Your task to perform on an android device: toggle priority inbox in the gmail app Image 0: 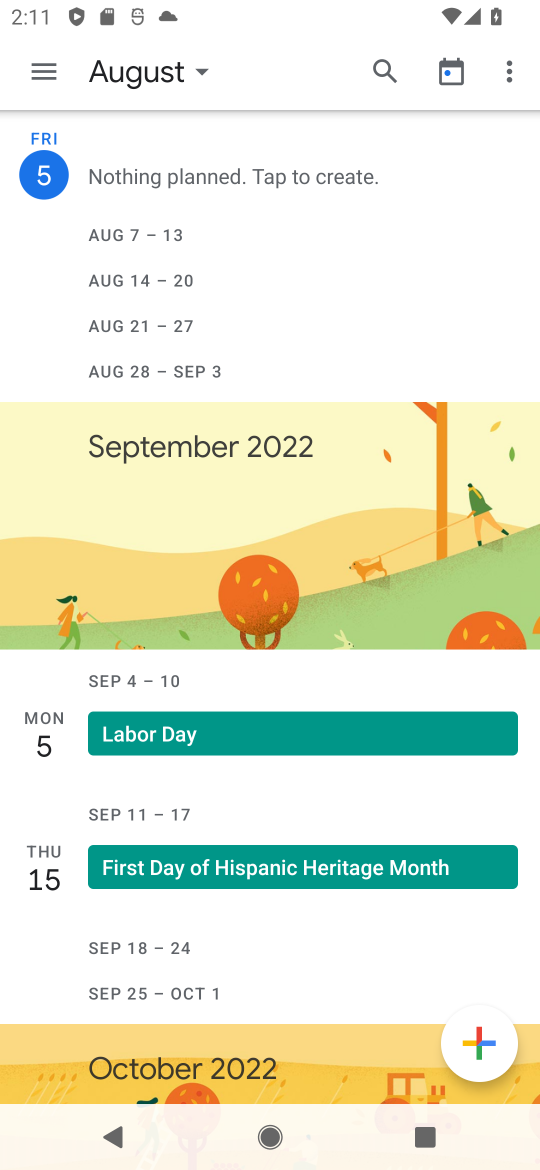
Step 0: press home button
Your task to perform on an android device: toggle priority inbox in the gmail app Image 1: 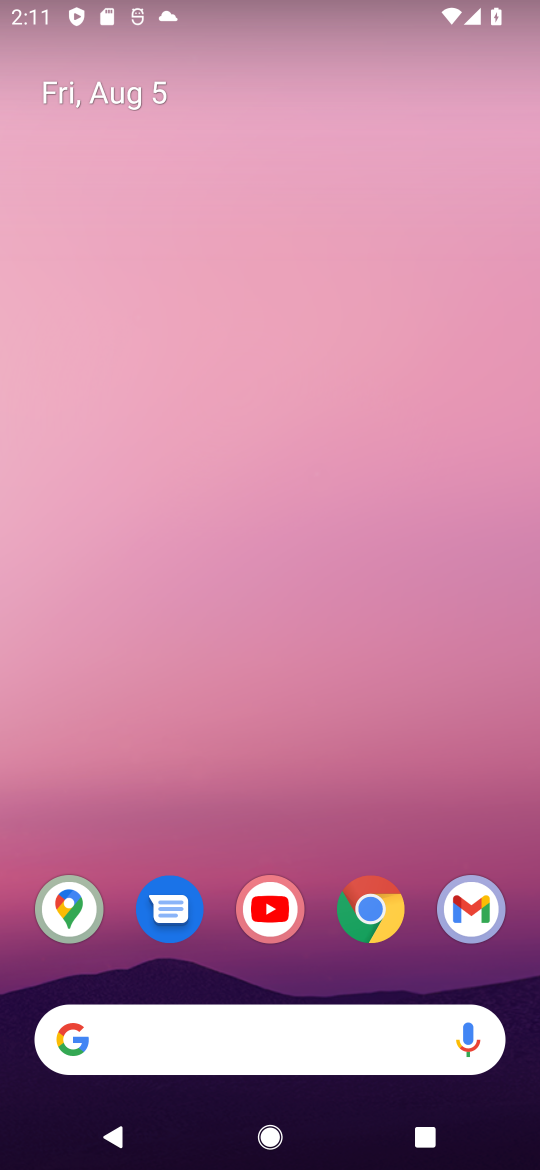
Step 1: drag from (228, 983) to (340, 263)
Your task to perform on an android device: toggle priority inbox in the gmail app Image 2: 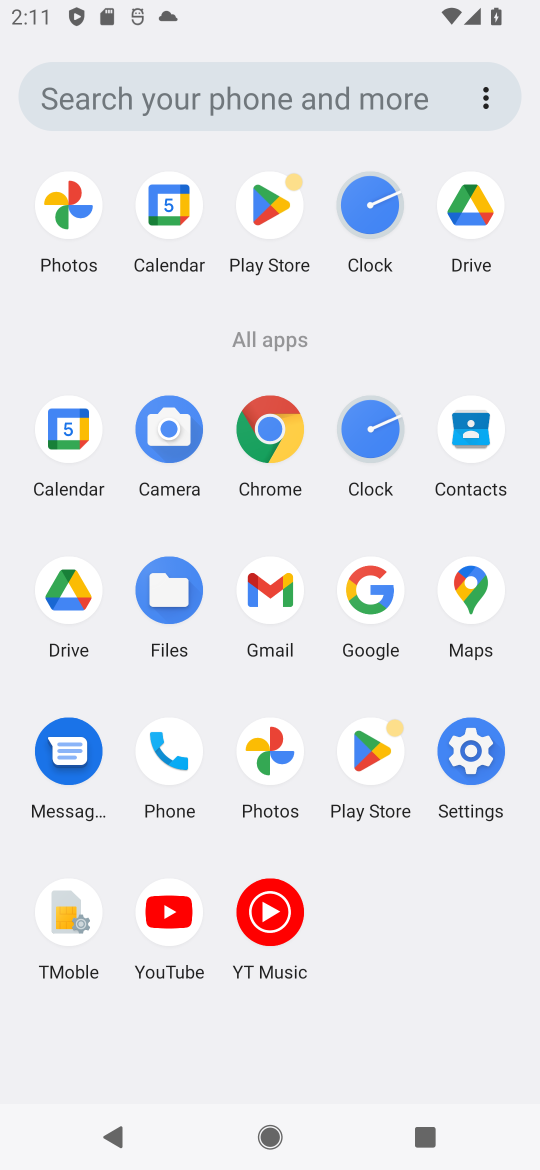
Step 2: click (288, 637)
Your task to perform on an android device: toggle priority inbox in the gmail app Image 3: 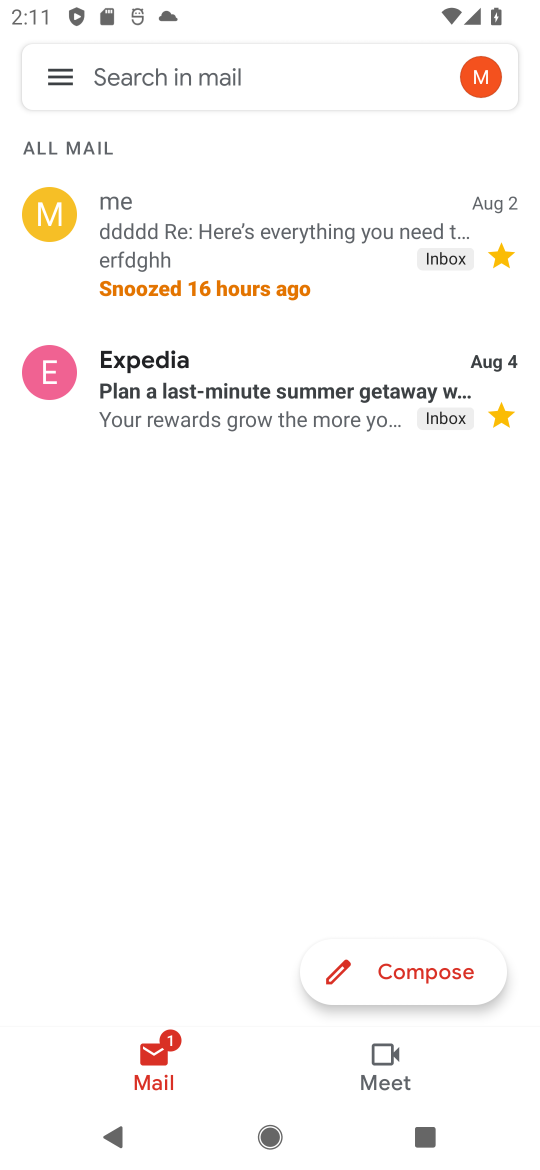
Step 3: click (46, 83)
Your task to perform on an android device: toggle priority inbox in the gmail app Image 4: 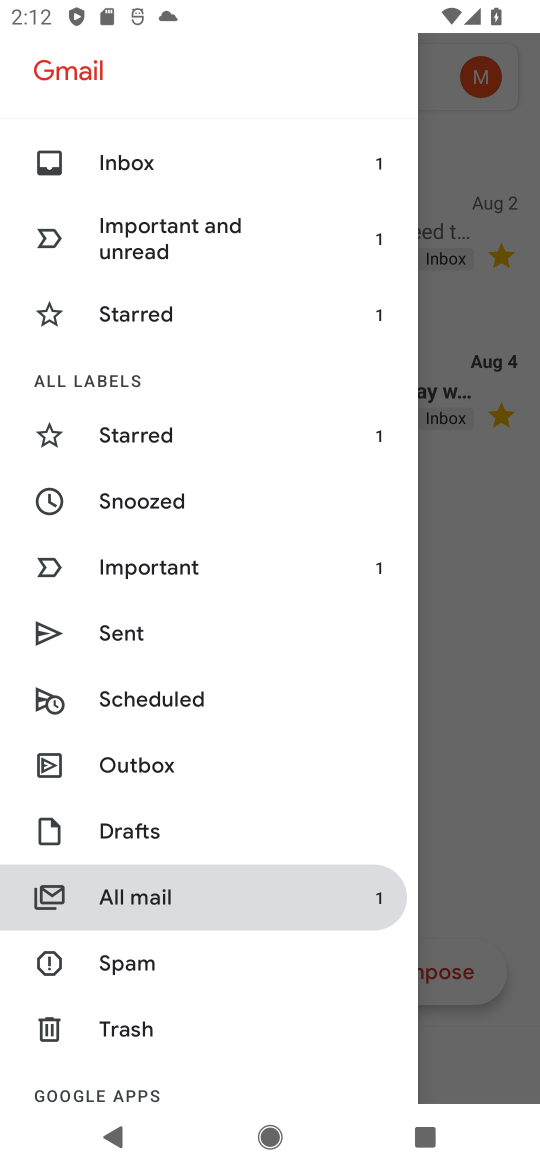
Step 4: drag from (164, 988) to (240, 327)
Your task to perform on an android device: toggle priority inbox in the gmail app Image 5: 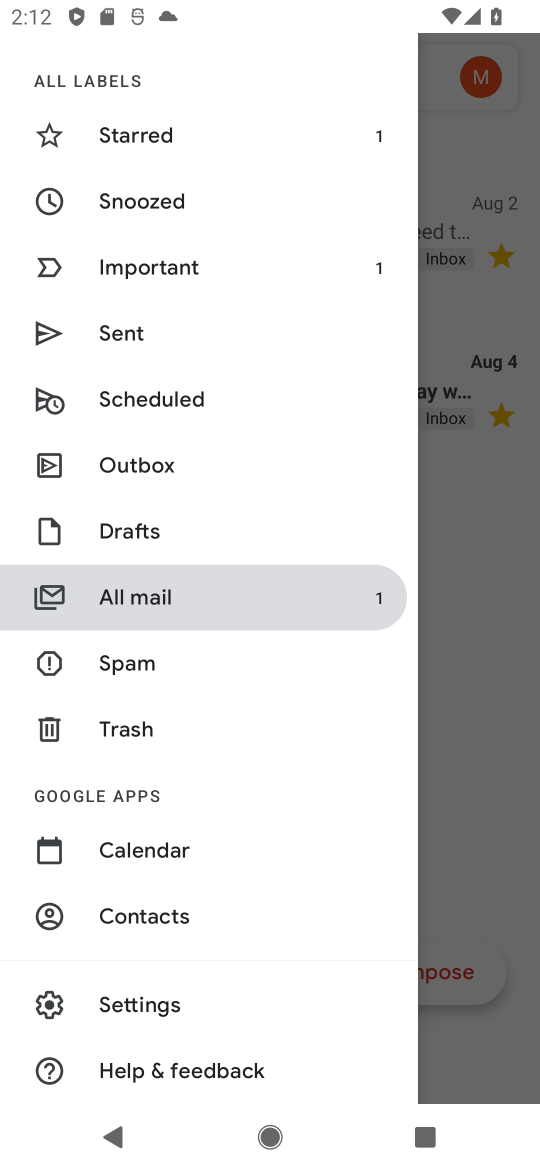
Step 5: click (226, 1012)
Your task to perform on an android device: toggle priority inbox in the gmail app Image 6: 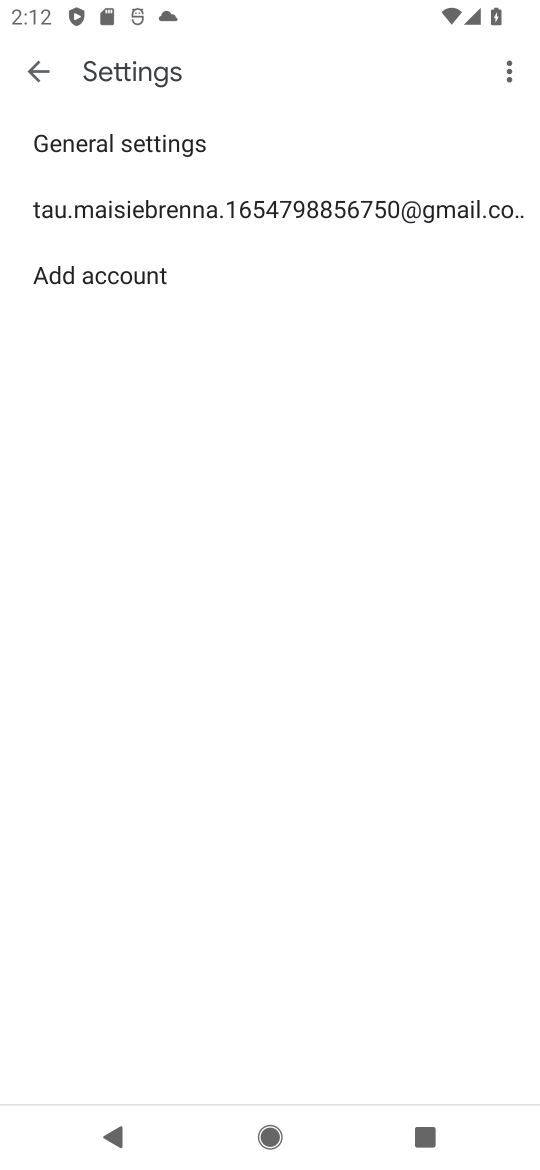
Step 6: click (514, 188)
Your task to perform on an android device: toggle priority inbox in the gmail app Image 7: 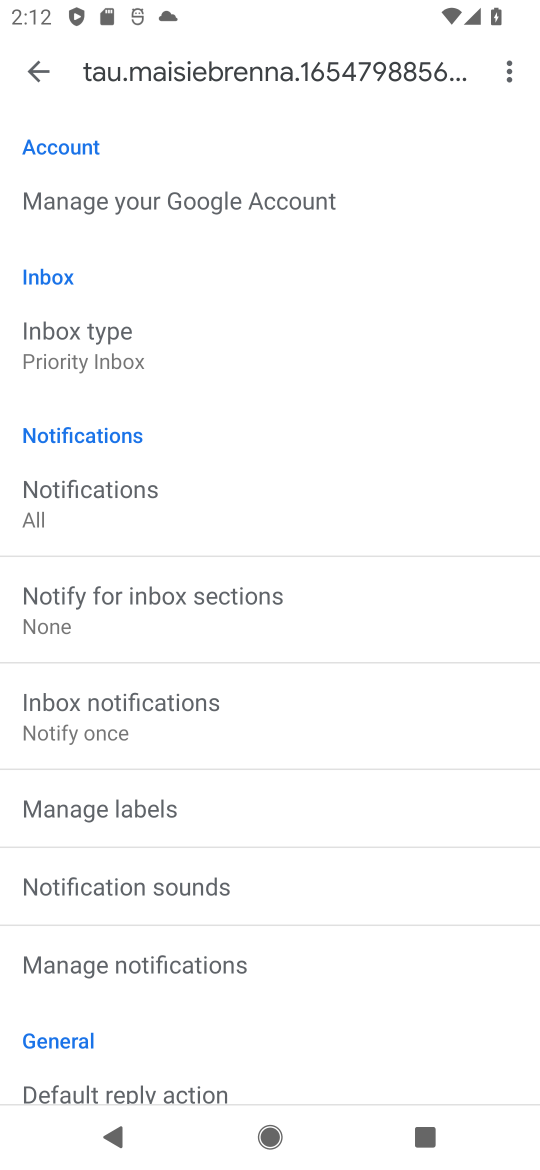
Step 7: task complete